Your task to perform on an android device: empty trash in the gmail app Image 0: 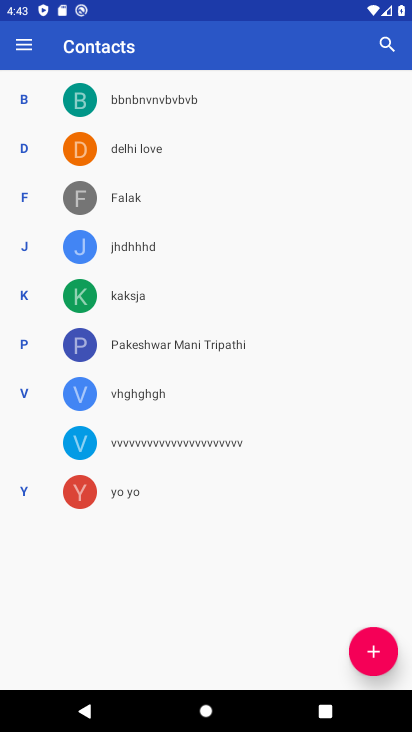
Step 0: press home button
Your task to perform on an android device: empty trash in the gmail app Image 1: 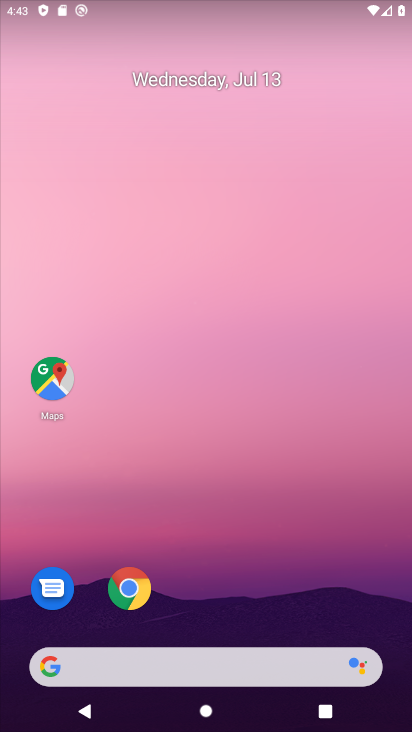
Step 1: drag from (180, 621) to (166, 24)
Your task to perform on an android device: empty trash in the gmail app Image 2: 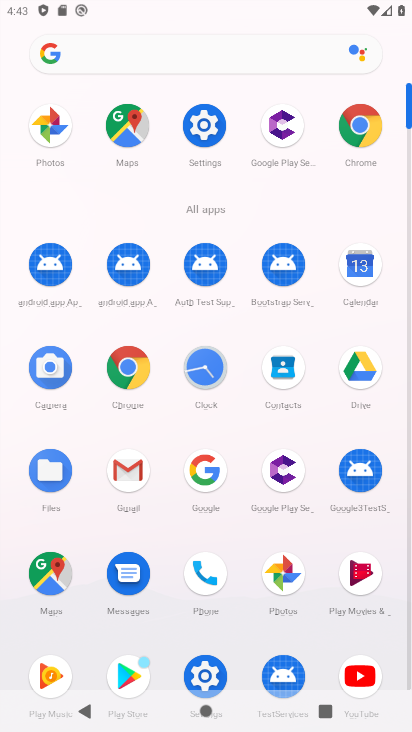
Step 2: click (122, 472)
Your task to perform on an android device: empty trash in the gmail app Image 3: 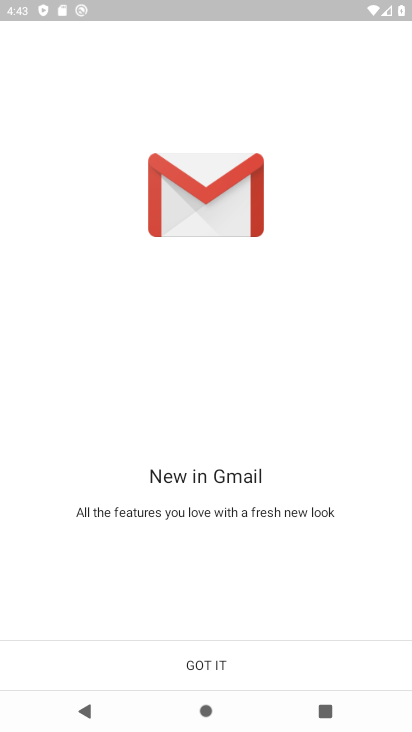
Step 3: click (240, 664)
Your task to perform on an android device: empty trash in the gmail app Image 4: 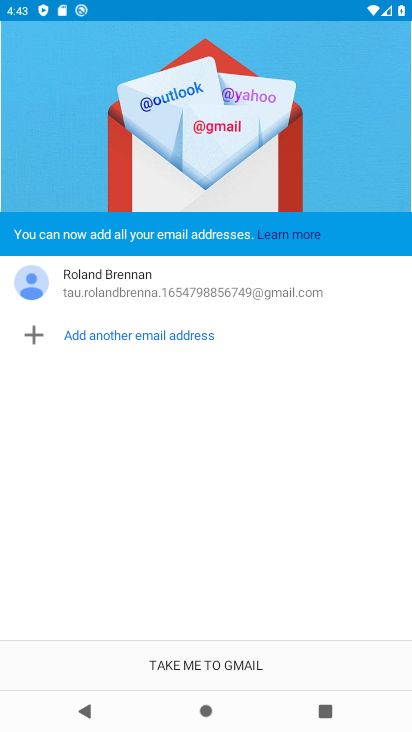
Step 4: click (240, 664)
Your task to perform on an android device: empty trash in the gmail app Image 5: 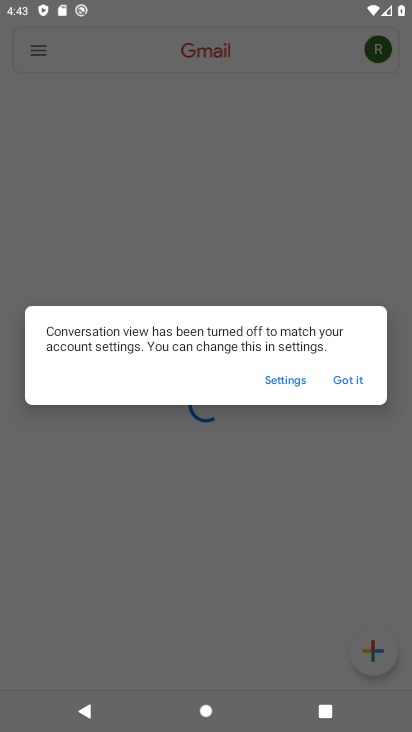
Step 5: click (367, 384)
Your task to perform on an android device: empty trash in the gmail app Image 6: 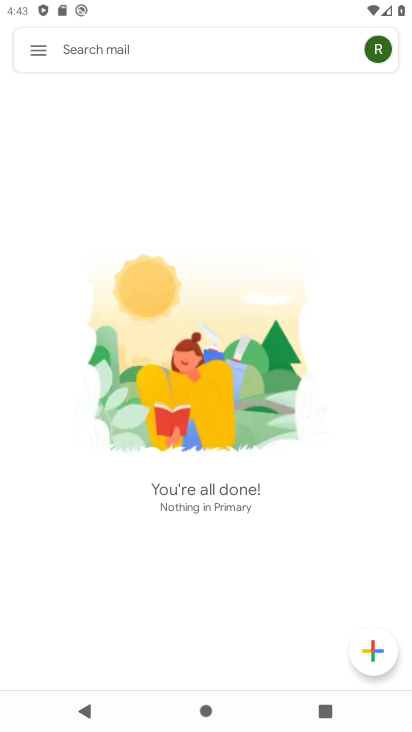
Step 6: click (42, 58)
Your task to perform on an android device: empty trash in the gmail app Image 7: 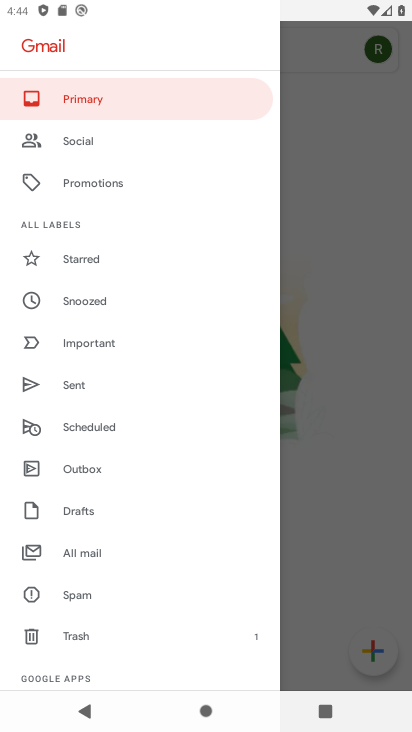
Step 7: click (139, 647)
Your task to perform on an android device: empty trash in the gmail app Image 8: 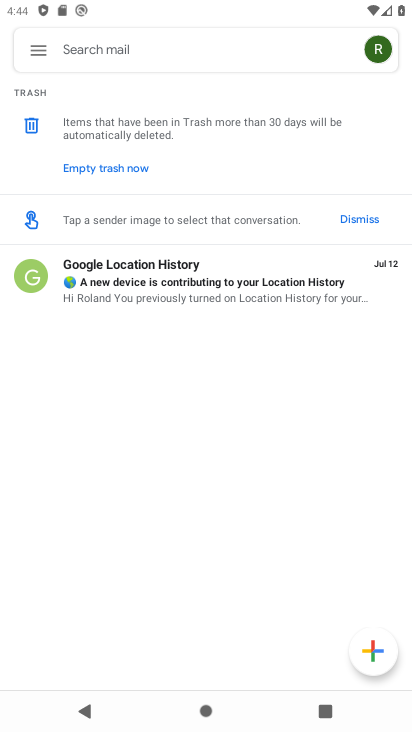
Step 8: click (88, 169)
Your task to perform on an android device: empty trash in the gmail app Image 9: 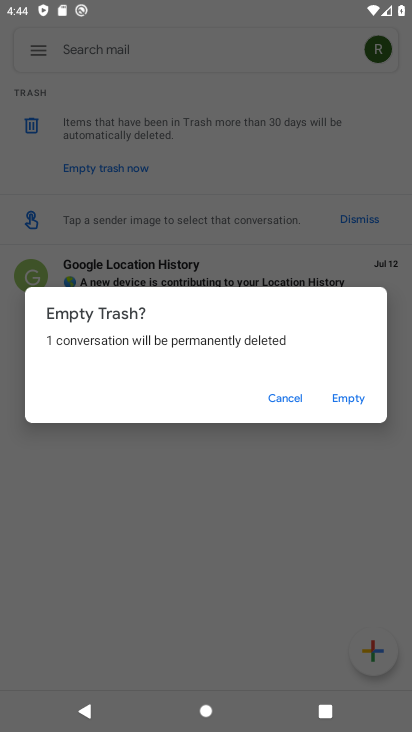
Step 9: click (337, 394)
Your task to perform on an android device: empty trash in the gmail app Image 10: 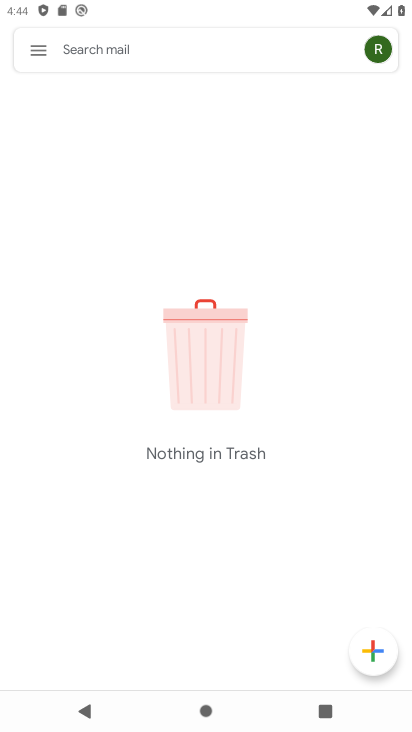
Step 10: task complete